Your task to perform on an android device: add a contact in the contacts app Image 0: 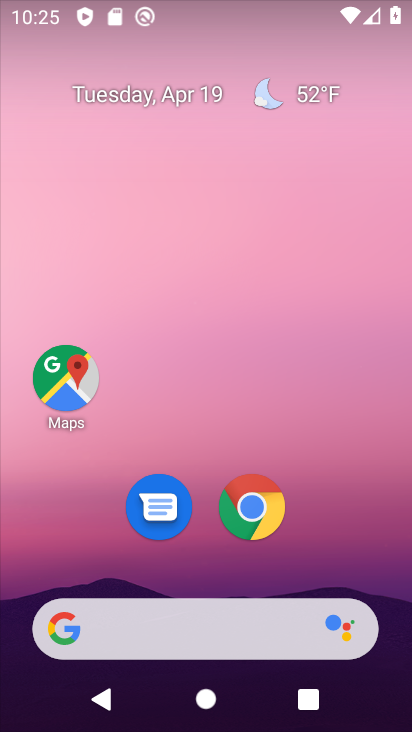
Step 0: drag from (356, 539) to (392, 135)
Your task to perform on an android device: add a contact in the contacts app Image 1: 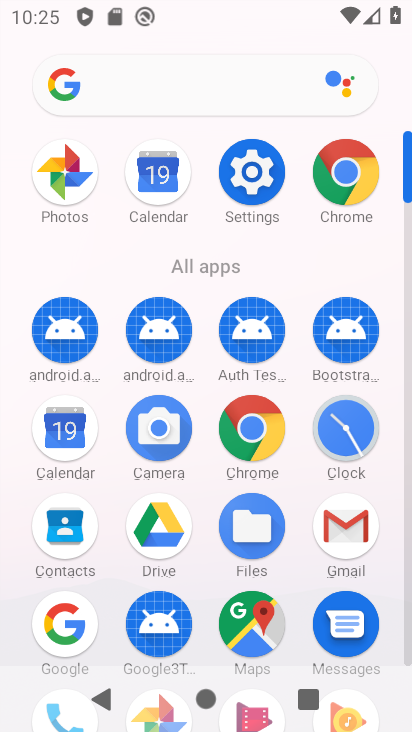
Step 1: click (66, 529)
Your task to perform on an android device: add a contact in the contacts app Image 2: 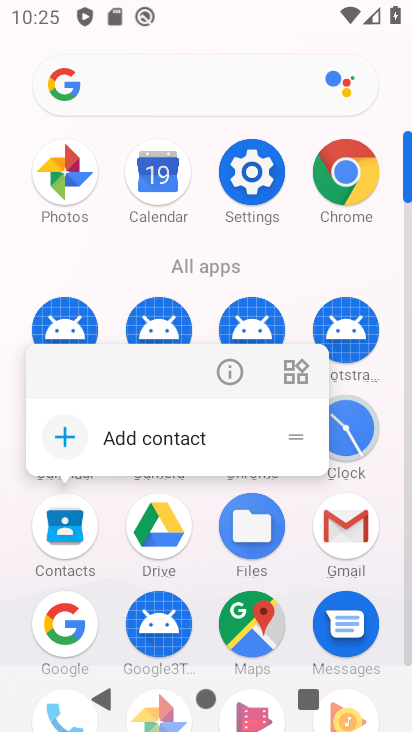
Step 2: click (52, 532)
Your task to perform on an android device: add a contact in the contacts app Image 3: 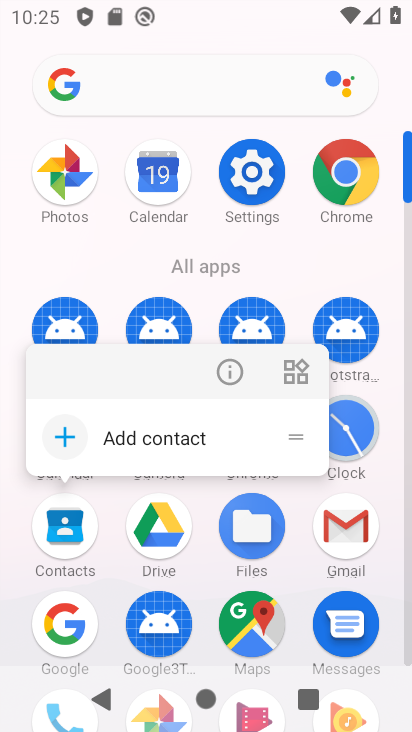
Step 3: click (52, 532)
Your task to perform on an android device: add a contact in the contacts app Image 4: 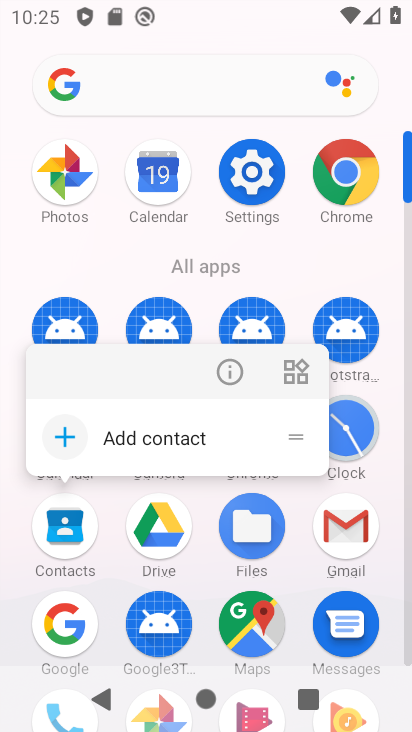
Step 4: click (52, 532)
Your task to perform on an android device: add a contact in the contacts app Image 5: 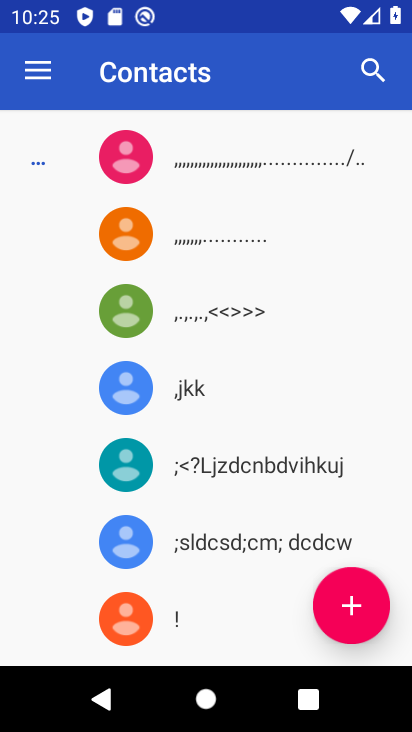
Step 5: click (353, 608)
Your task to perform on an android device: add a contact in the contacts app Image 6: 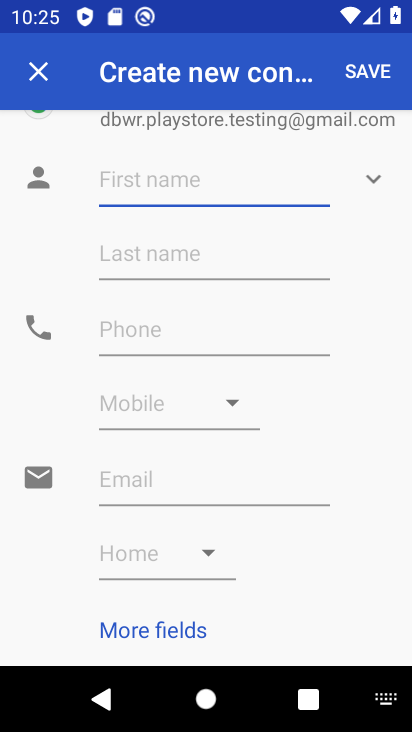
Step 6: type "luv"
Your task to perform on an android device: add a contact in the contacts app Image 7: 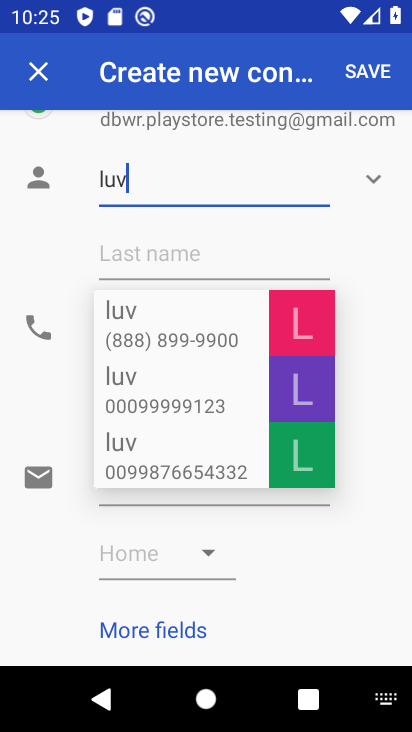
Step 7: click (372, 292)
Your task to perform on an android device: add a contact in the contacts app Image 8: 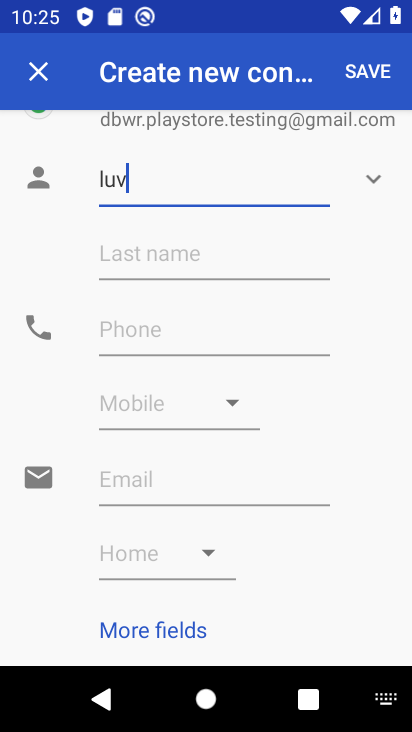
Step 8: click (210, 344)
Your task to perform on an android device: add a contact in the contacts app Image 9: 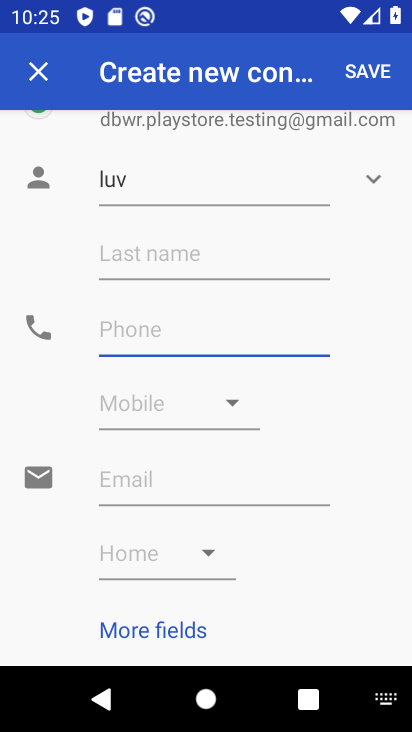
Step 9: type "1234567890"
Your task to perform on an android device: add a contact in the contacts app Image 10: 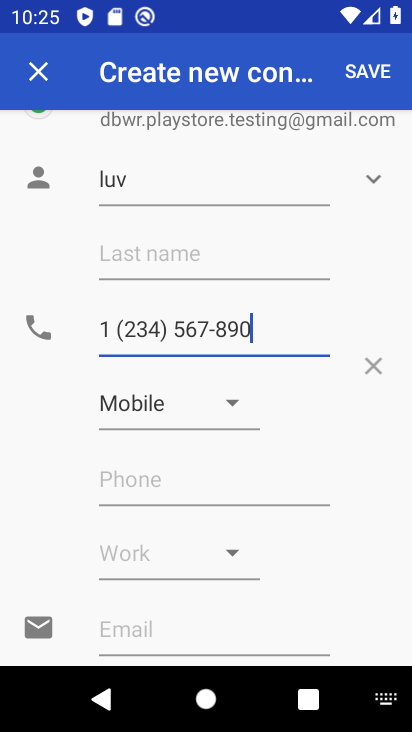
Step 10: click (366, 60)
Your task to perform on an android device: add a contact in the contacts app Image 11: 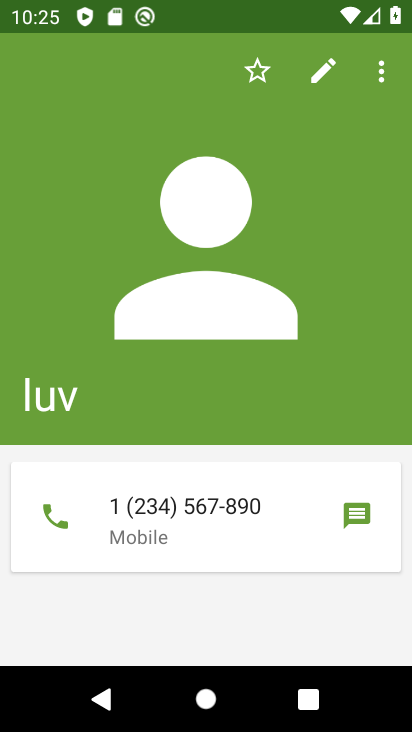
Step 11: task complete